Your task to perform on an android device: stop showing notifications on the lock screen Image 0: 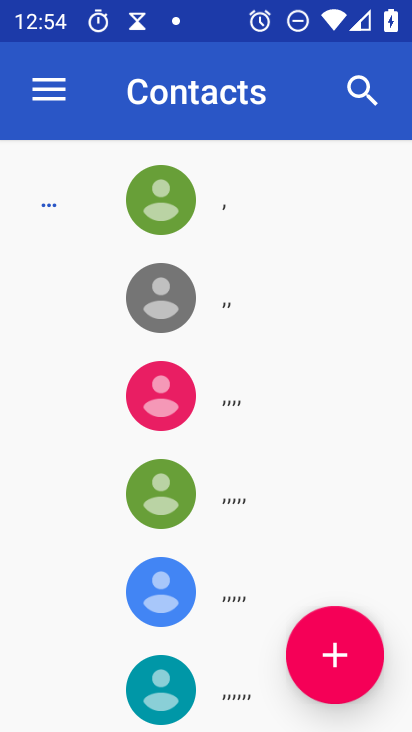
Step 0: press home button
Your task to perform on an android device: stop showing notifications on the lock screen Image 1: 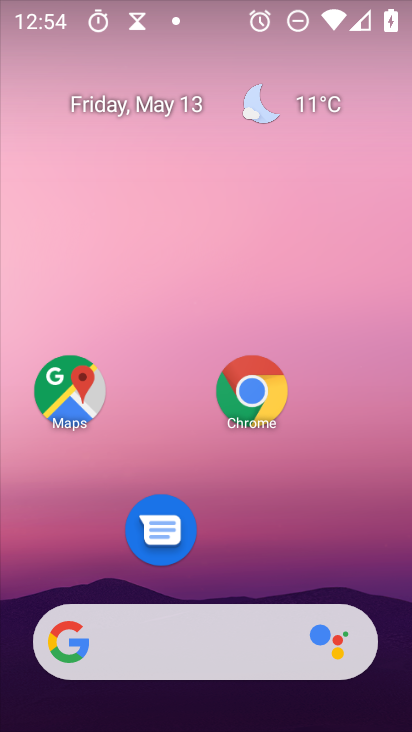
Step 1: drag from (152, 641) to (308, 158)
Your task to perform on an android device: stop showing notifications on the lock screen Image 2: 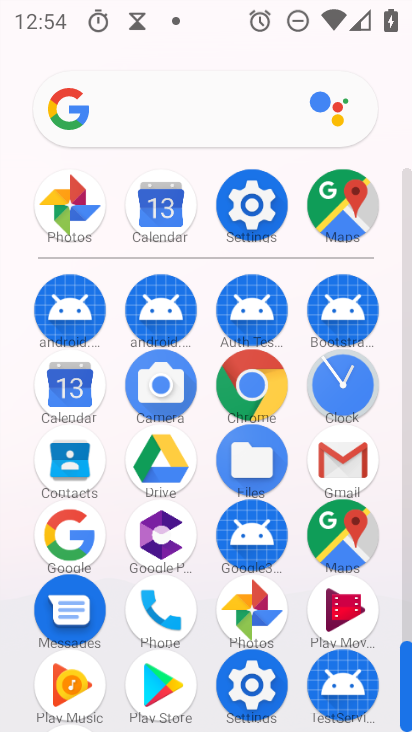
Step 2: click (259, 220)
Your task to perform on an android device: stop showing notifications on the lock screen Image 3: 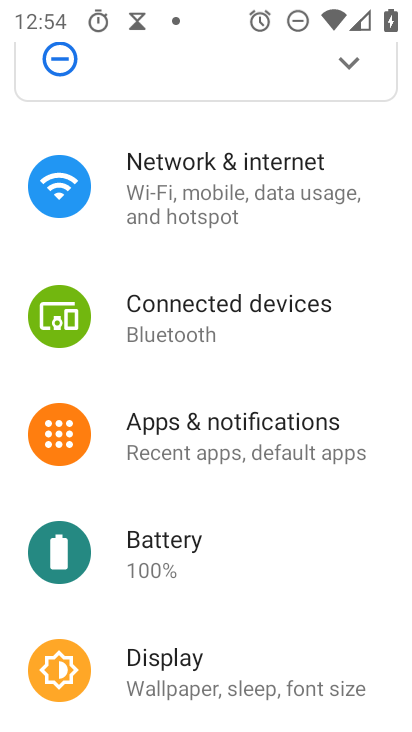
Step 3: click (216, 427)
Your task to perform on an android device: stop showing notifications on the lock screen Image 4: 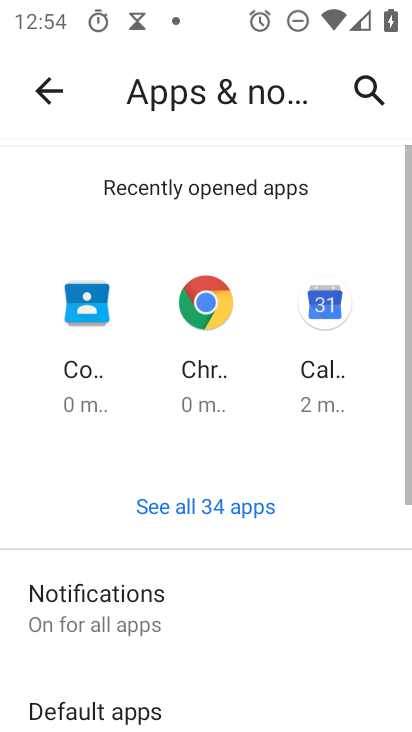
Step 4: click (109, 595)
Your task to perform on an android device: stop showing notifications on the lock screen Image 5: 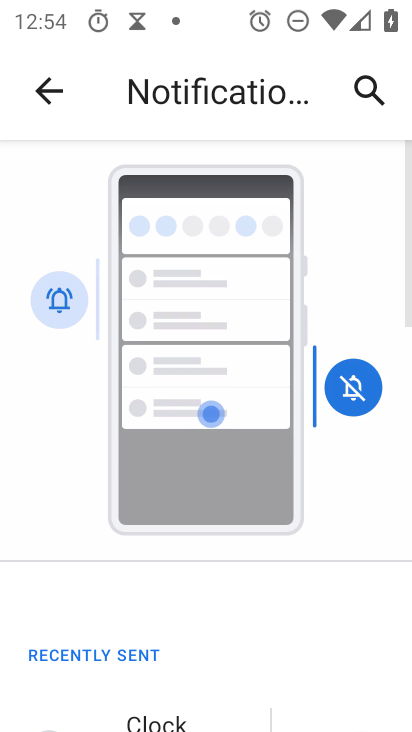
Step 5: drag from (175, 634) to (346, 126)
Your task to perform on an android device: stop showing notifications on the lock screen Image 6: 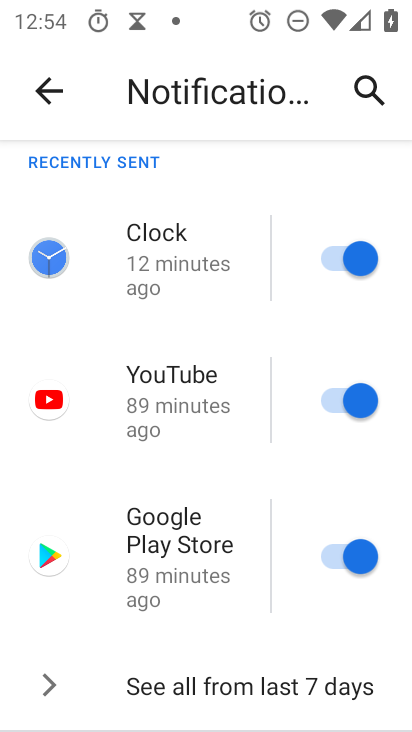
Step 6: drag from (188, 636) to (278, 258)
Your task to perform on an android device: stop showing notifications on the lock screen Image 7: 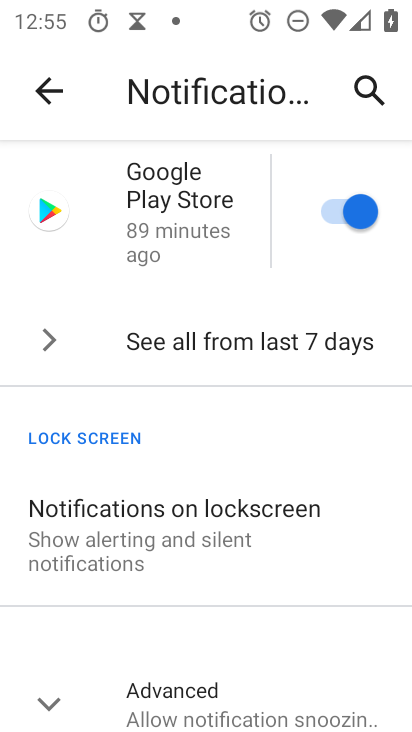
Step 7: click (198, 546)
Your task to perform on an android device: stop showing notifications on the lock screen Image 8: 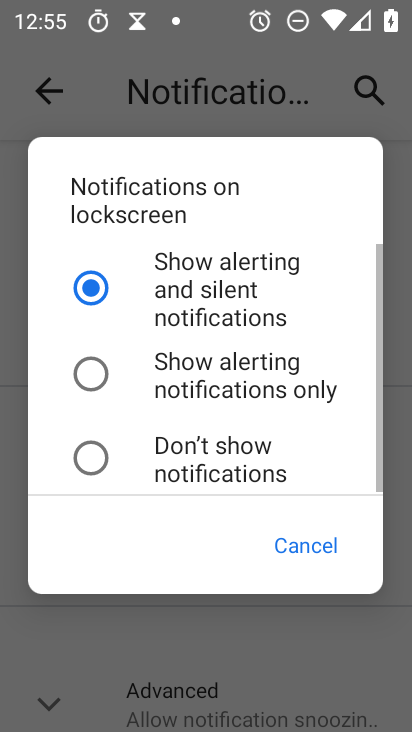
Step 8: click (95, 455)
Your task to perform on an android device: stop showing notifications on the lock screen Image 9: 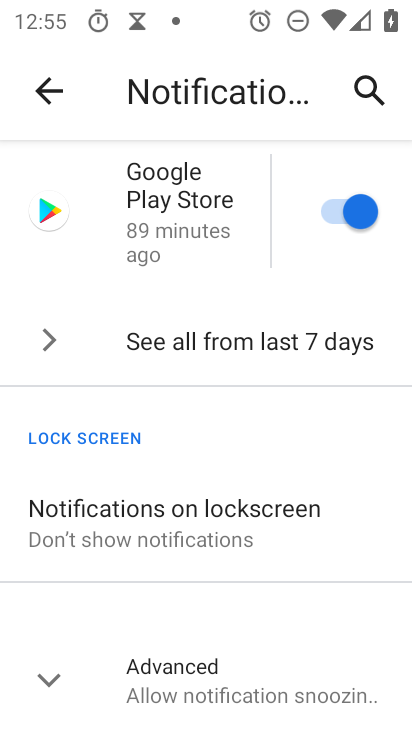
Step 9: task complete